Your task to perform on an android device: What's the weather today? Image 0: 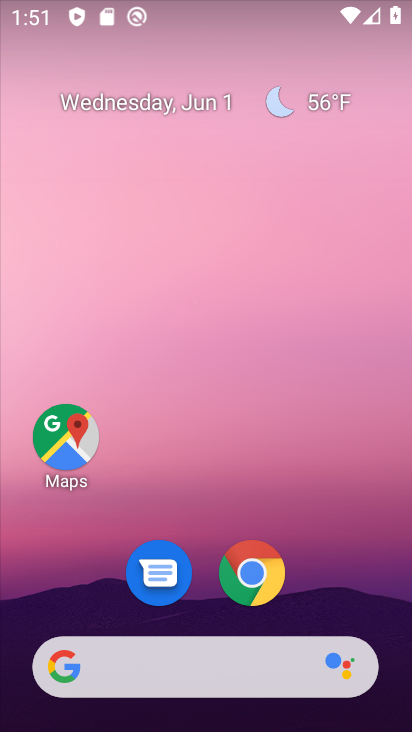
Step 0: drag from (170, 617) to (327, 203)
Your task to perform on an android device: What's the weather today? Image 1: 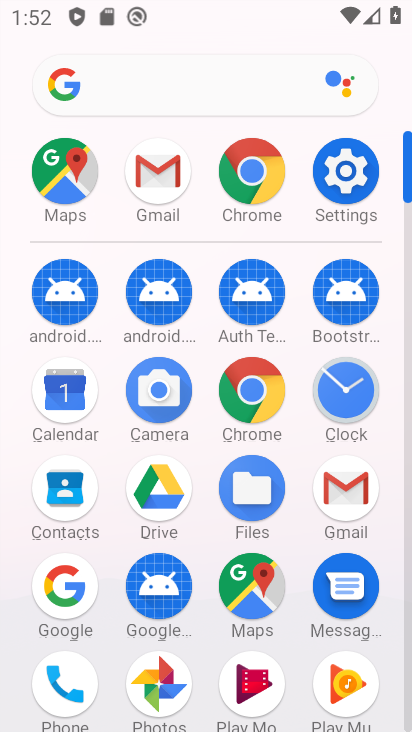
Step 1: click (155, 81)
Your task to perform on an android device: What's the weather today? Image 2: 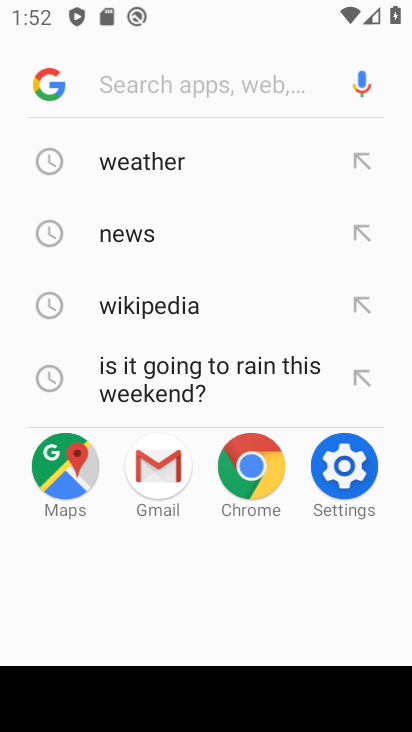
Step 2: type "weather today"
Your task to perform on an android device: What's the weather today? Image 3: 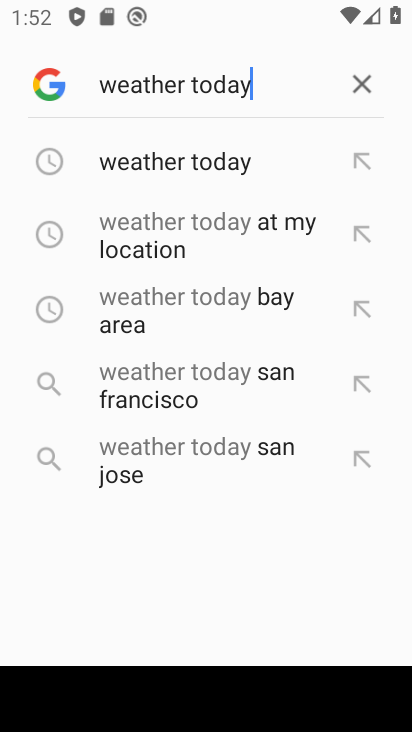
Step 3: click (149, 161)
Your task to perform on an android device: What's the weather today? Image 4: 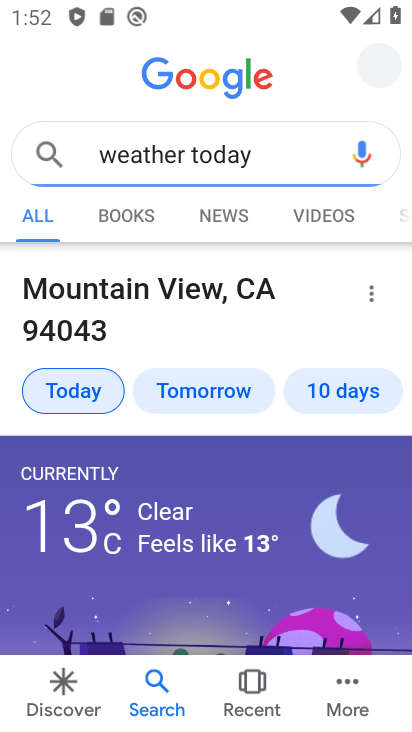
Step 4: task complete